Your task to perform on an android device: check battery use Image 0: 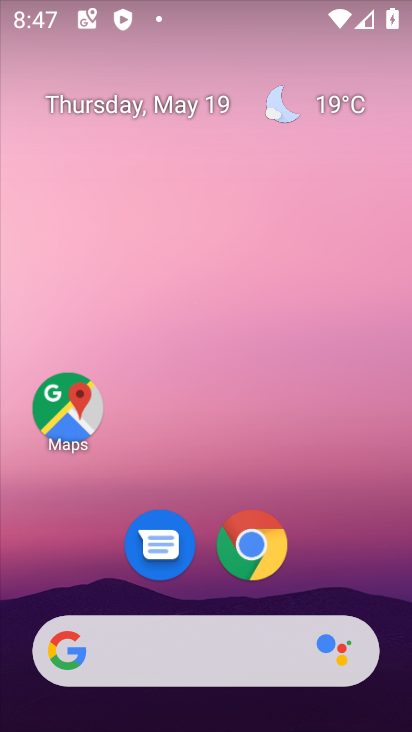
Step 0: drag from (354, 566) to (278, 55)
Your task to perform on an android device: check battery use Image 1: 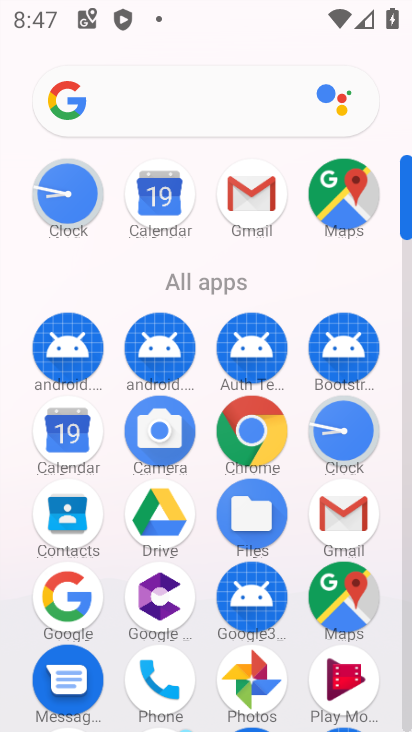
Step 1: click (67, 208)
Your task to perform on an android device: check battery use Image 2: 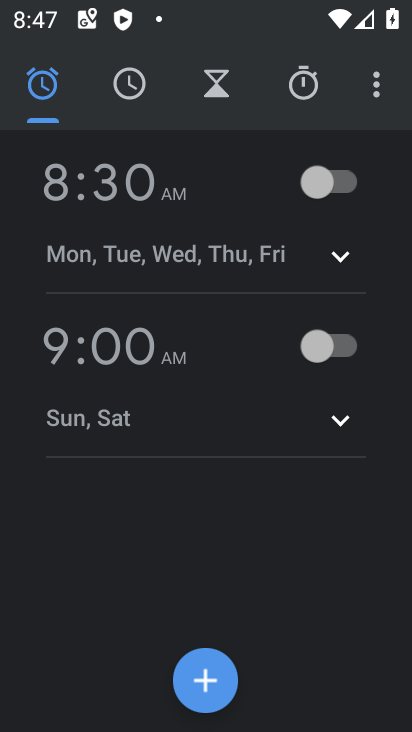
Step 2: press home button
Your task to perform on an android device: check battery use Image 3: 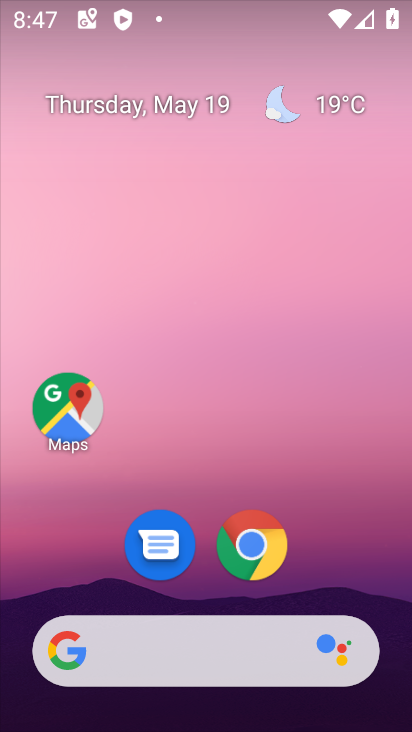
Step 3: drag from (351, 586) to (311, 226)
Your task to perform on an android device: check battery use Image 4: 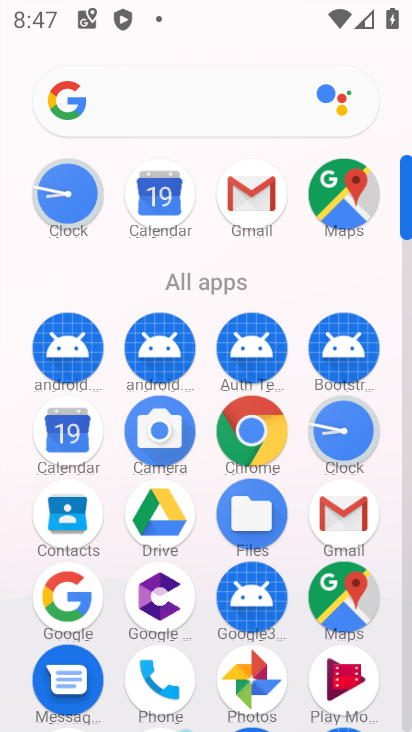
Step 4: click (407, 612)
Your task to perform on an android device: check battery use Image 5: 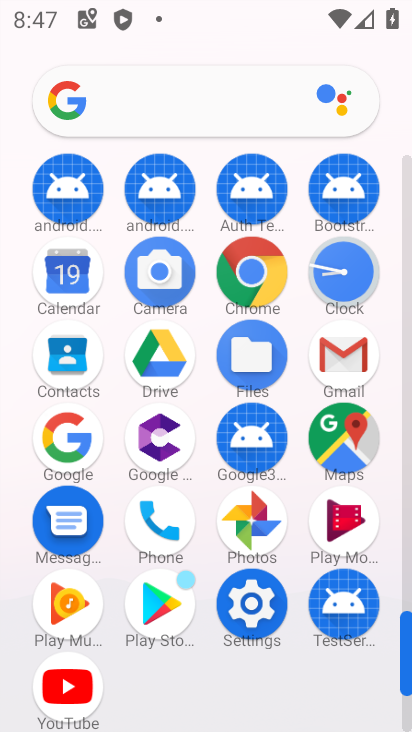
Step 5: click (257, 645)
Your task to perform on an android device: check battery use Image 6: 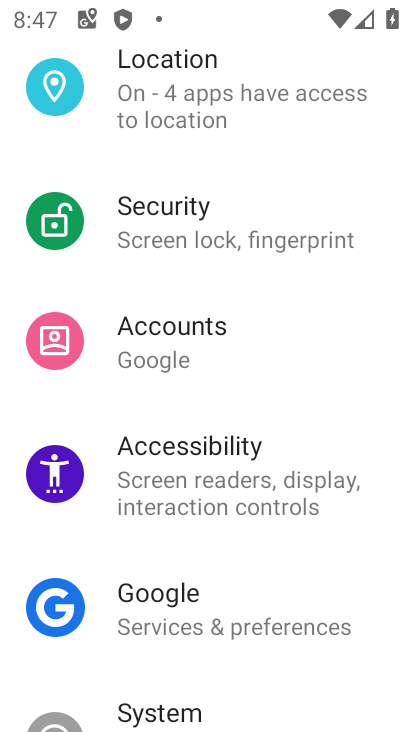
Step 6: drag from (151, 534) to (211, 106)
Your task to perform on an android device: check battery use Image 7: 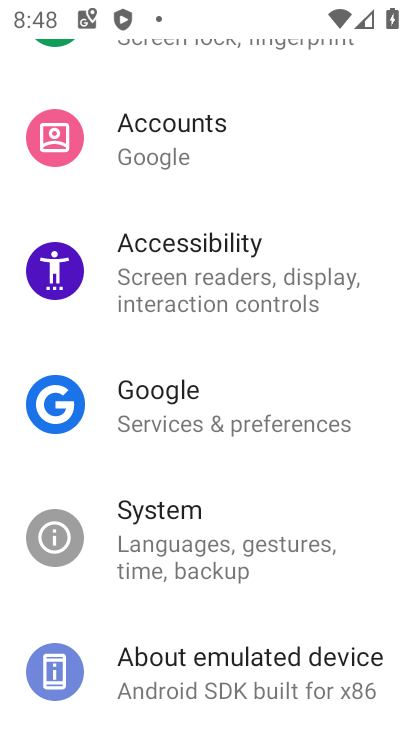
Step 7: drag from (211, 106) to (222, 571)
Your task to perform on an android device: check battery use Image 8: 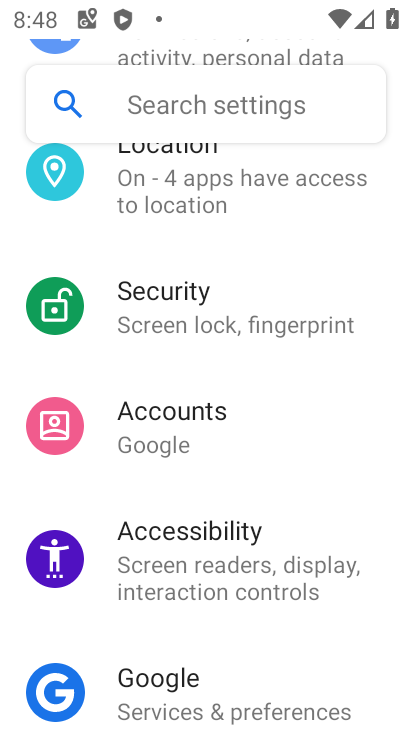
Step 8: drag from (239, 258) to (264, 663)
Your task to perform on an android device: check battery use Image 9: 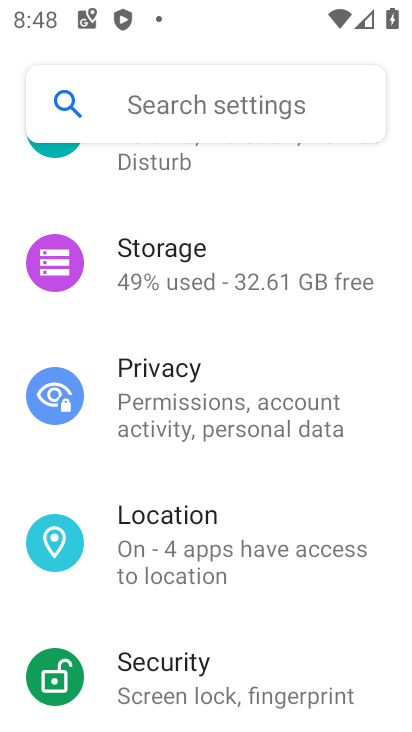
Step 9: drag from (167, 240) to (167, 651)
Your task to perform on an android device: check battery use Image 10: 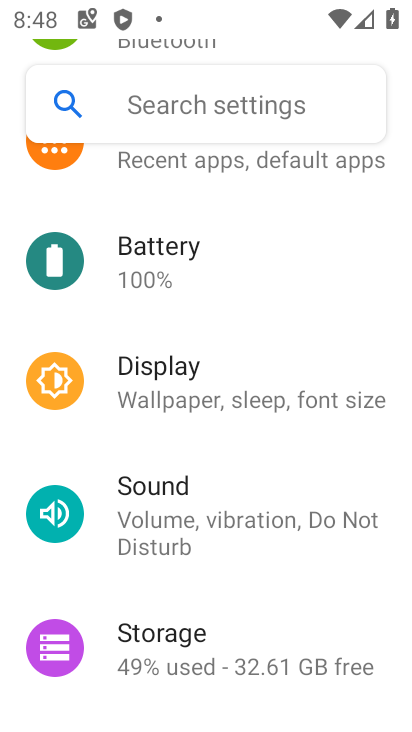
Step 10: click (164, 247)
Your task to perform on an android device: check battery use Image 11: 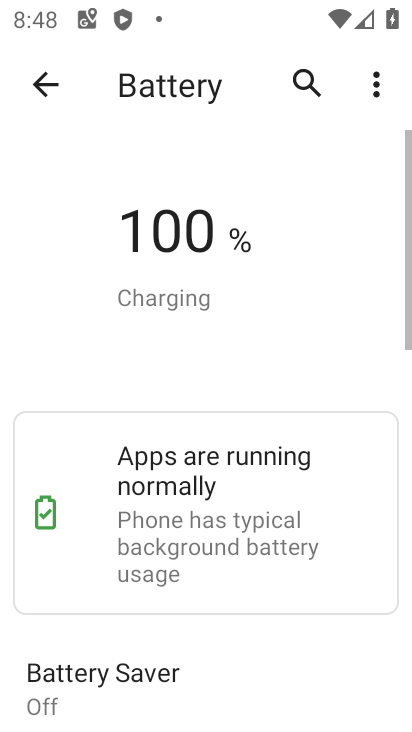
Step 11: task complete